Your task to perform on an android device: Open Amazon Image 0: 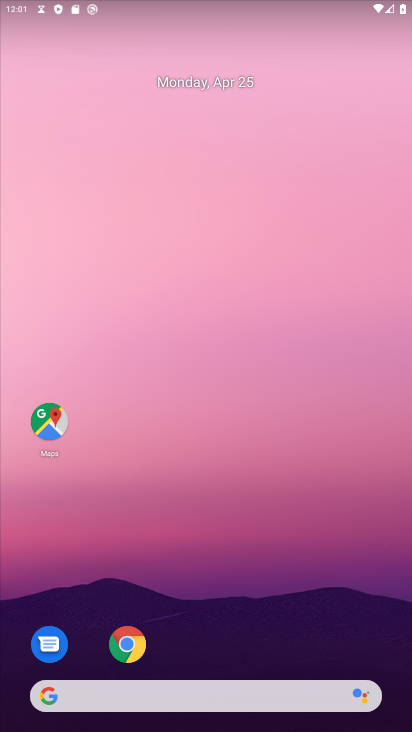
Step 0: click (124, 650)
Your task to perform on an android device: Open Amazon Image 1: 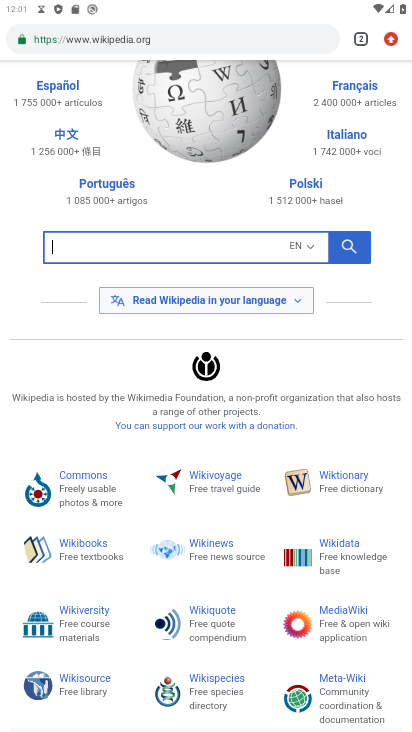
Step 1: click (133, 35)
Your task to perform on an android device: Open Amazon Image 2: 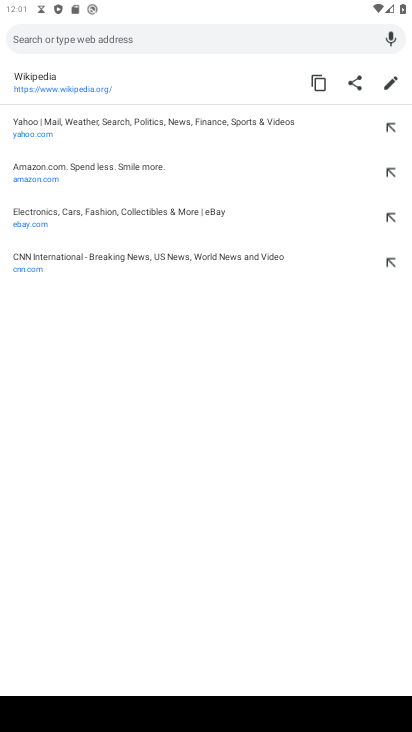
Step 2: click (38, 170)
Your task to perform on an android device: Open Amazon Image 3: 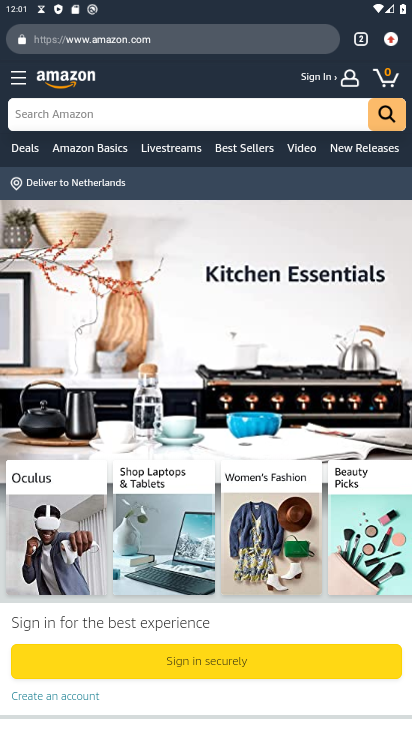
Step 3: task complete